Your task to perform on an android device: turn off data saver in the chrome app Image 0: 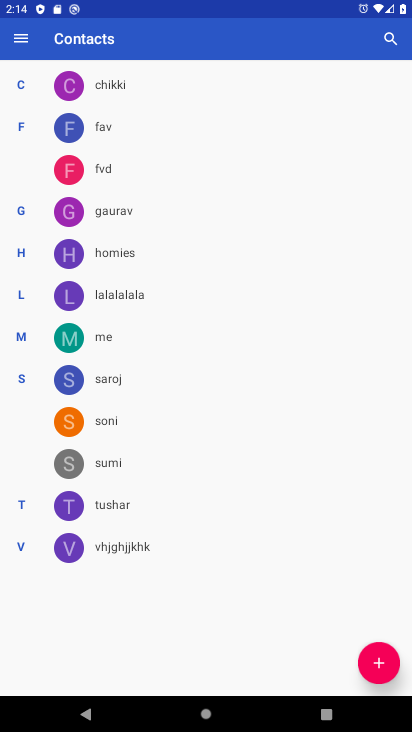
Step 0: press home button
Your task to perform on an android device: turn off data saver in the chrome app Image 1: 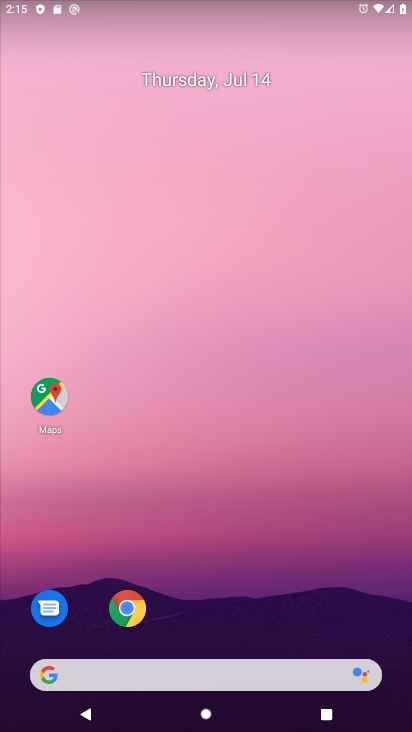
Step 1: click (122, 610)
Your task to perform on an android device: turn off data saver in the chrome app Image 2: 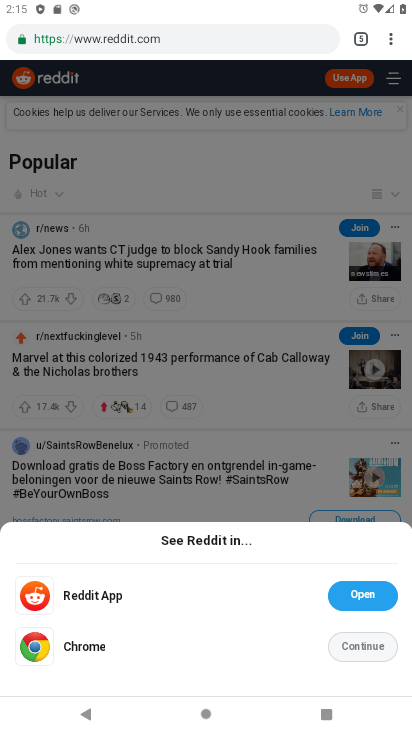
Step 2: click (390, 40)
Your task to perform on an android device: turn off data saver in the chrome app Image 3: 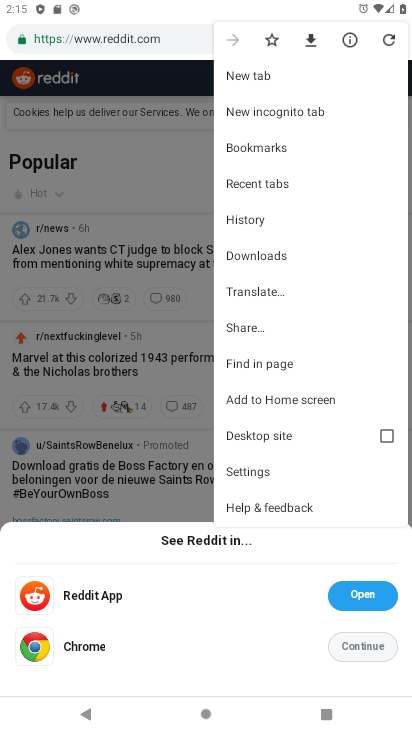
Step 3: click (254, 466)
Your task to perform on an android device: turn off data saver in the chrome app Image 4: 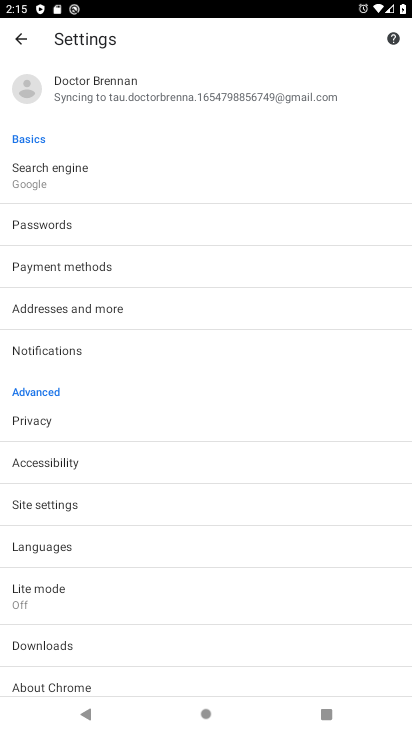
Step 4: click (44, 588)
Your task to perform on an android device: turn off data saver in the chrome app Image 5: 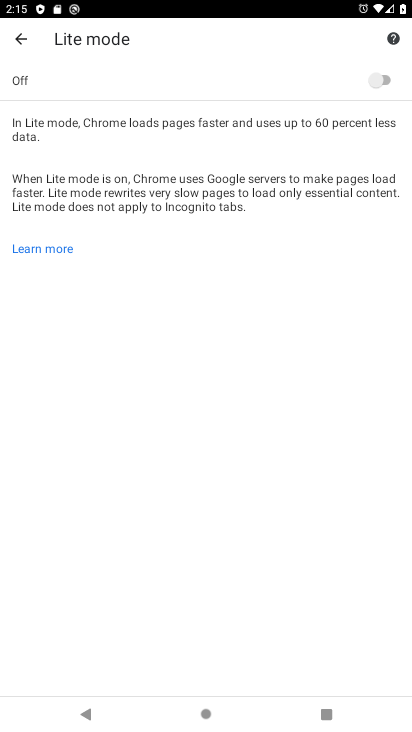
Step 5: task complete